Your task to perform on an android device: check data usage Image 0: 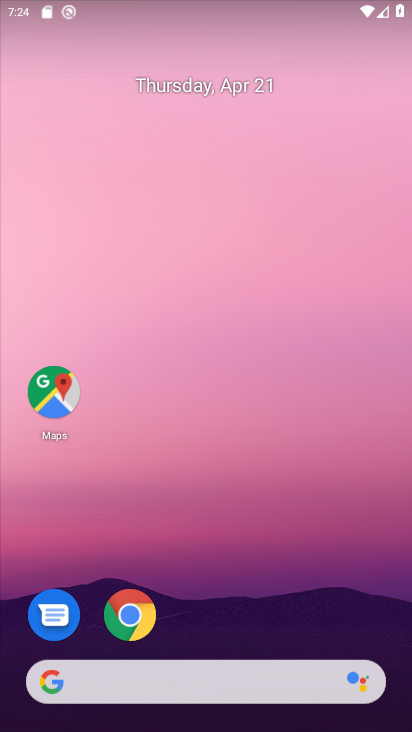
Step 0: drag from (171, 688) to (303, 54)
Your task to perform on an android device: check data usage Image 1: 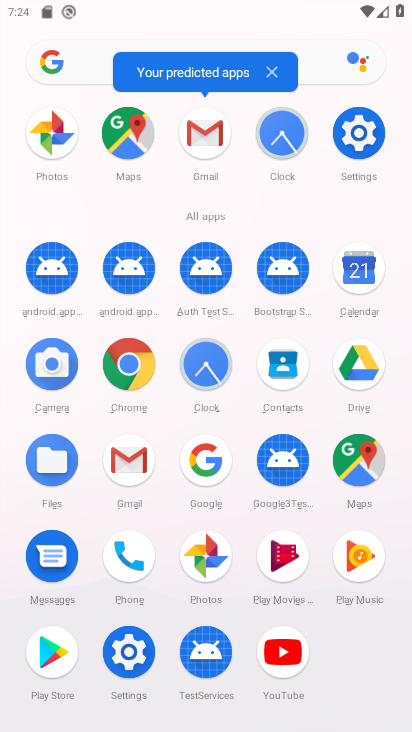
Step 1: click (367, 139)
Your task to perform on an android device: check data usage Image 2: 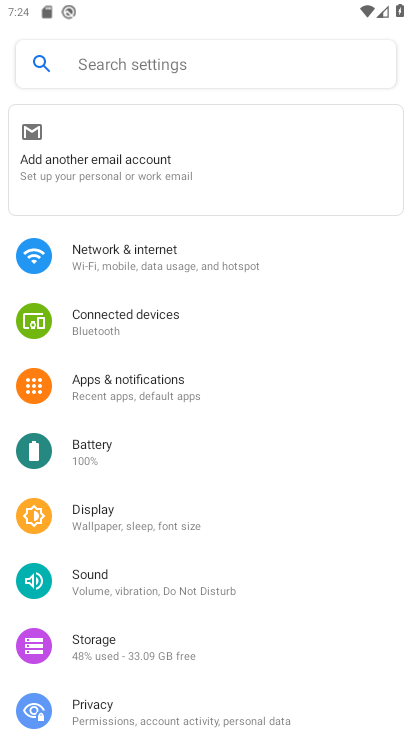
Step 2: click (151, 252)
Your task to perform on an android device: check data usage Image 3: 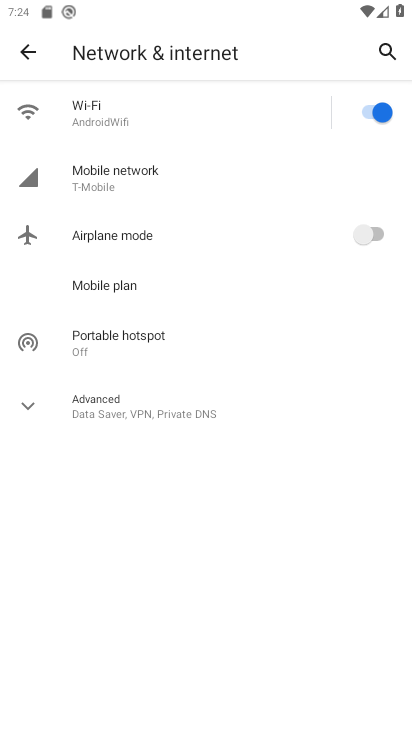
Step 3: click (132, 118)
Your task to perform on an android device: check data usage Image 4: 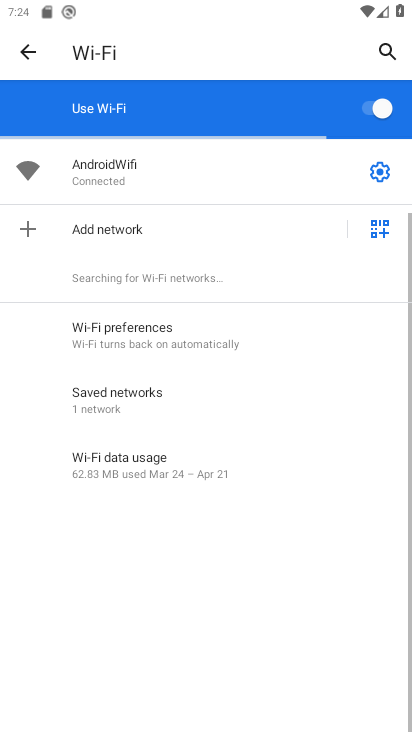
Step 4: click (130, 459)
Your task to perform on an android device: check data usage Image 5: 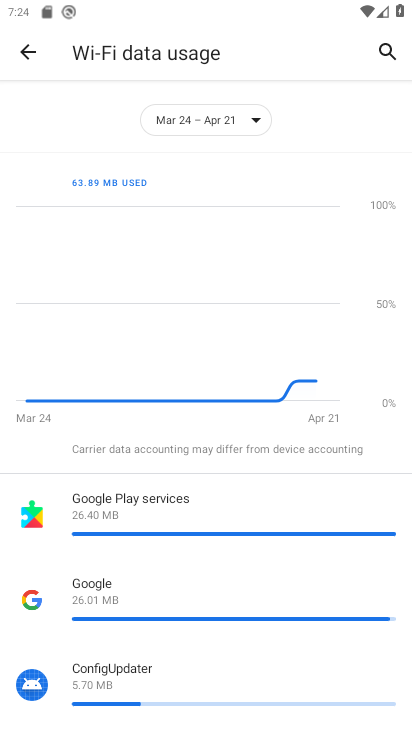
Step 5: task complete